Your task to perform on an android device: What's on my calendar today? Image 0: 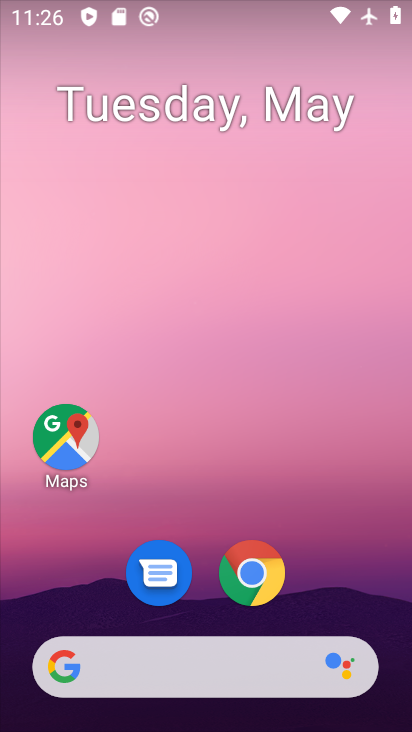
Step 0: drag from (195, 638) to (219, 240)
Your task to perform on an android device: What's on my calendar today? Image 1: 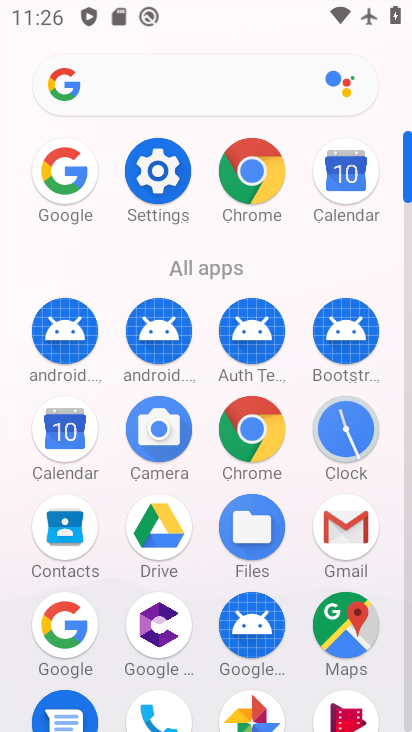
Step 1: click (332, 176)
Your task to perform on an android device: What's on my calendar today? Image 2: 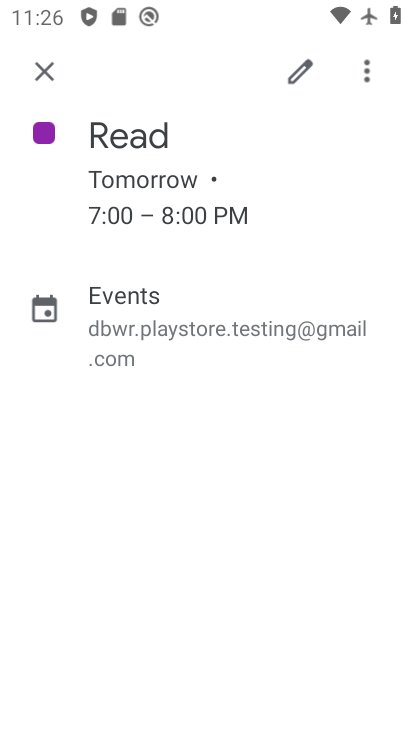
Step 2: click (32, 72)
Your task to perform on an android device: What's on my calendar today? Image 3: 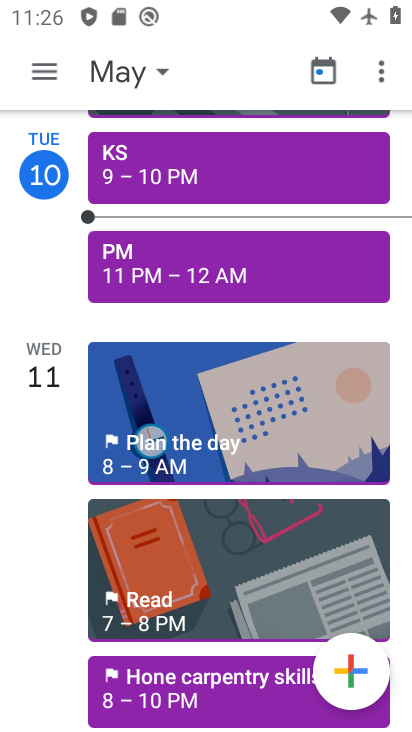
Step 3: click (192, 429)
Your task to perform on an android device: What's on my calendar today? Image 4: 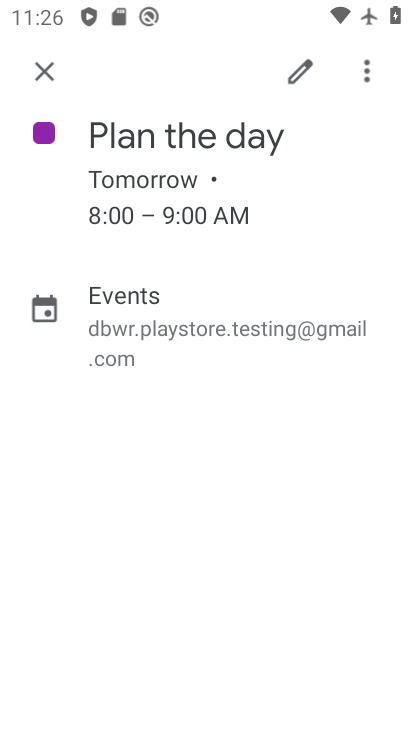
Step 4: task complete